Your task to perform on an android device: Open privacy settings Image 0: 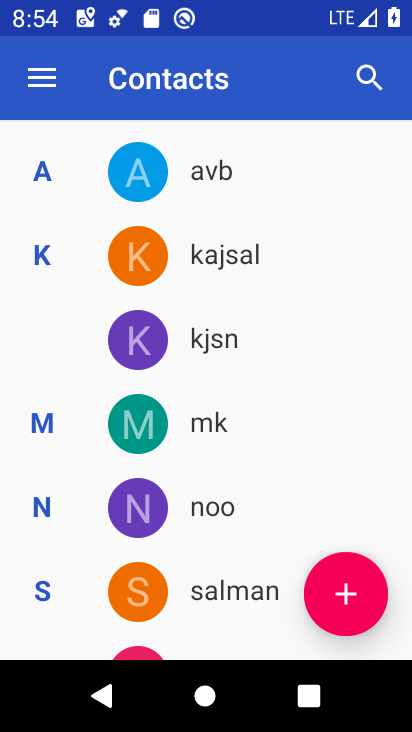
Step 0: press home button
Your task to perform on an android device: Open privacy settings Image 1: 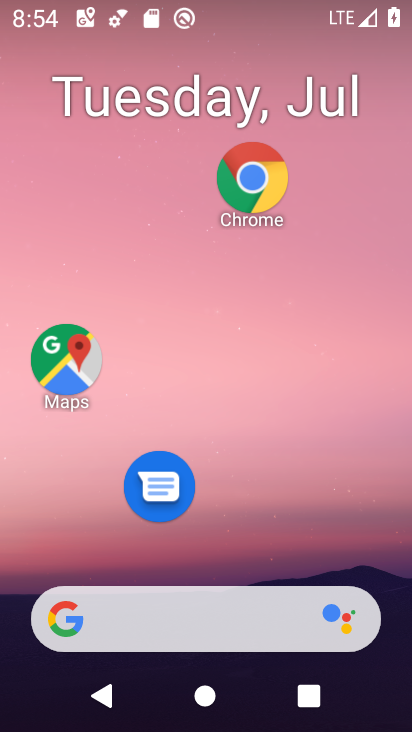
Step 1: drag from (239, 577) to (272, 7)
Your task to perform on an android device: Open privacy settings Image 2: 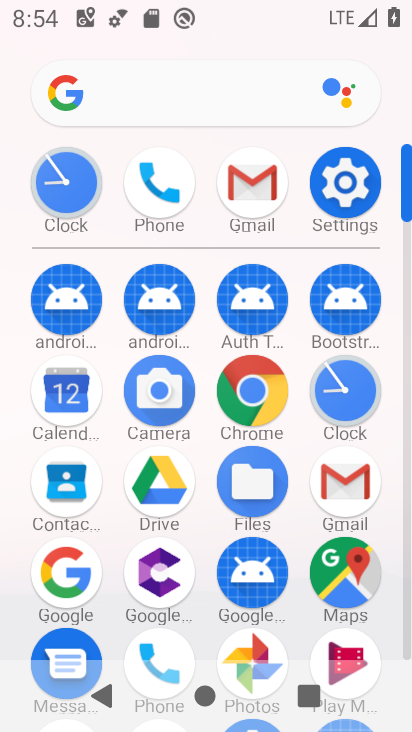
Step 2: click (351, 184)
Your task to perform on an android device: Open privacy settings Image 3: 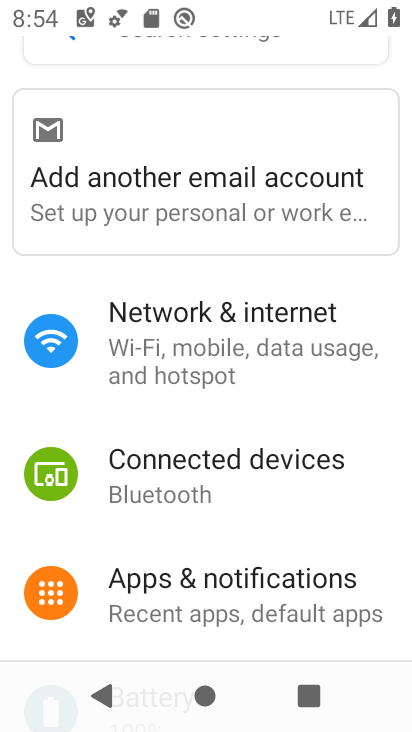
Step 3: drag from (234, 490) to (293, 0)
Your task to perform on an android device: Open privacy settings Image 4: 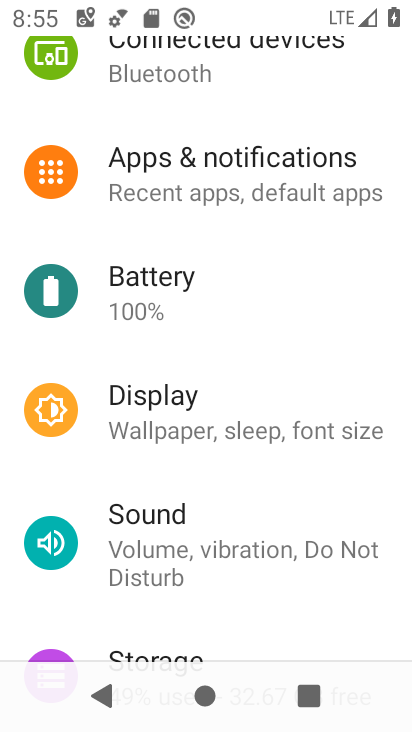
Step 4: drag from (188, 539) to (240, 305)
Your task to perform on an android device: Open privacy settings Image 5: 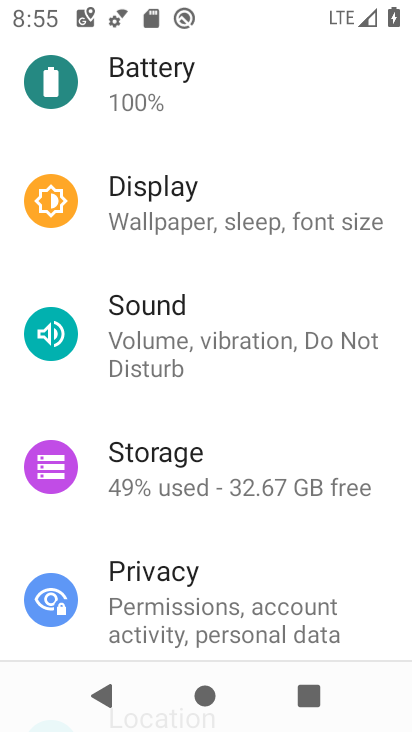
Step 5: click (175, 593)
Your task to perform on an android device: Open privacy settings Image 6: 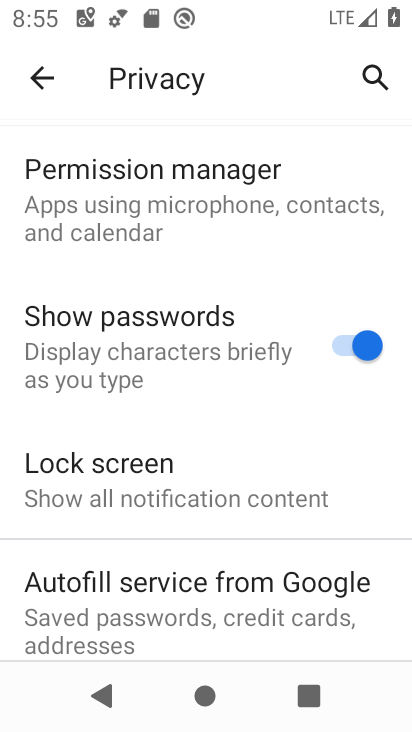
Step 6: task complete